Your task to perform on an android device: Open Yahoo.com Image 0: 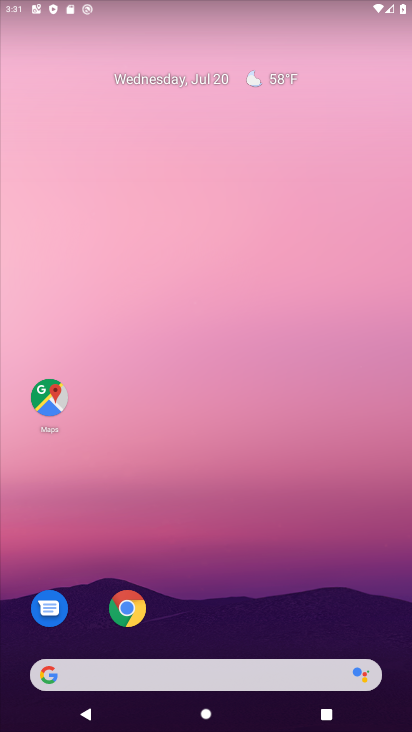
Step 0: click (230, 667)
Your task to perform on an android device: Open Yahoo.com Image 1: 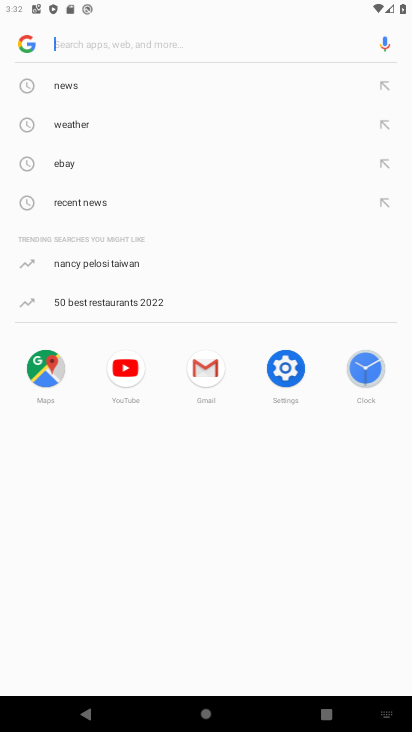
Step 1: type "yahoo.com"
Your task to perform on an android device: Open Yahoo.com Image 2: 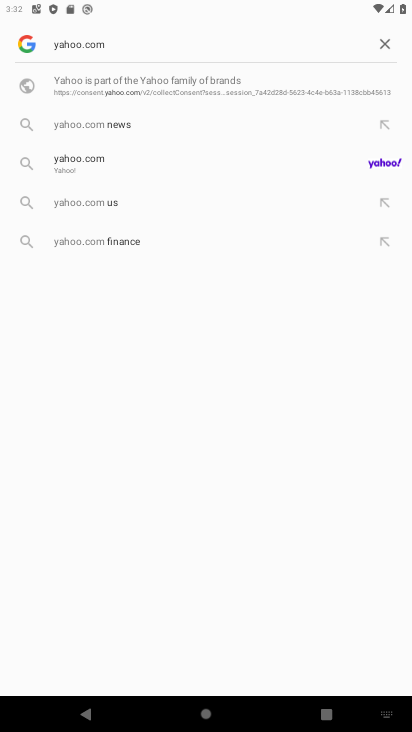
Step 2: click (238, 113)
Your task to perform on an android device: Open Yahoo.com Image 3: 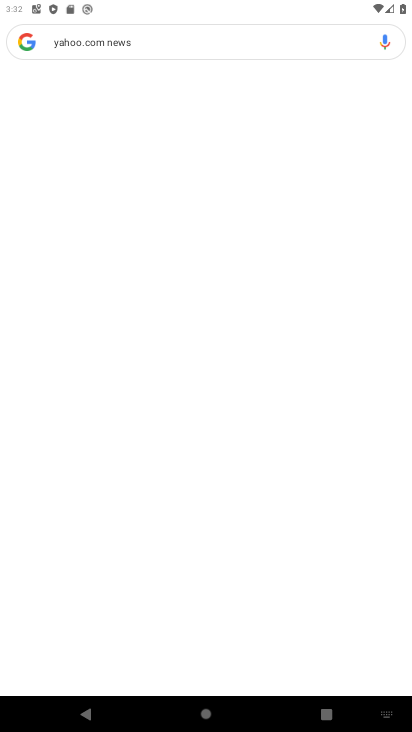
Step 3: task complete